Your task to perform on an android device: Go to Yahoo.com Image 0: 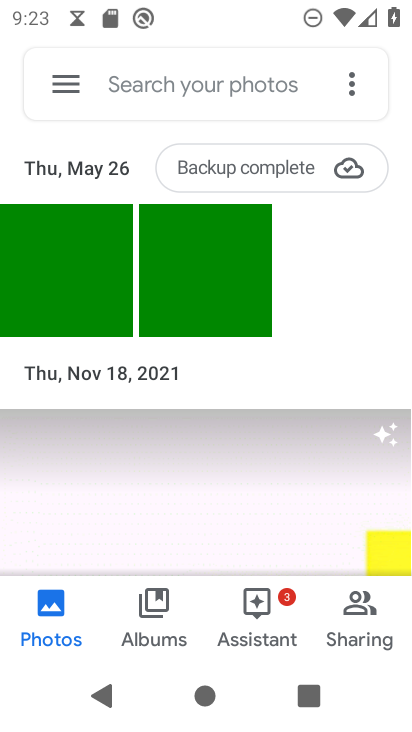
Step 0: press home button
Your task to perform on an android device: Go to Yahoo.com Image 1: 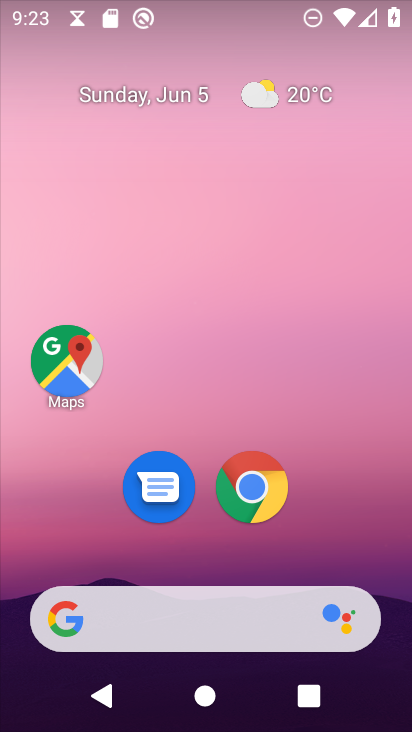
Step 1: click (249, 483)
Your task to perform on an android device: Go to Yahoo.com Image 2: 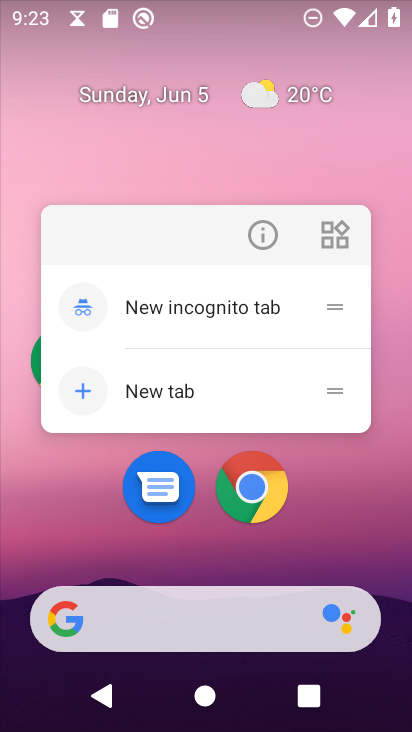
Step 2: click (248, 485)
Your task to perform on an android device: Go to Yahoo.com Image 3: 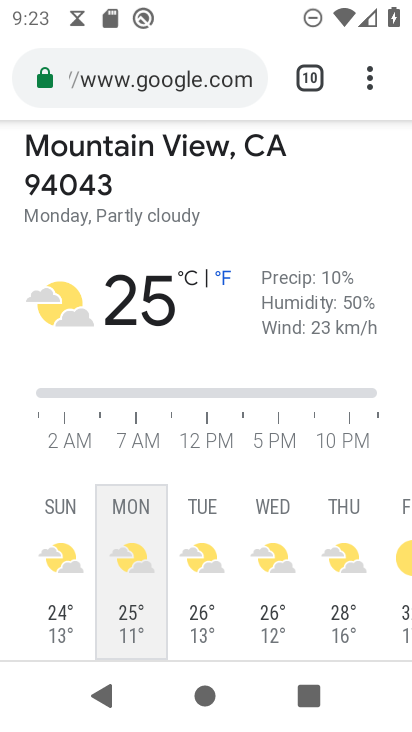
Step 3: click (372, 81)
Your task to perform on an android device: Go to Yahoo.com Image 4: 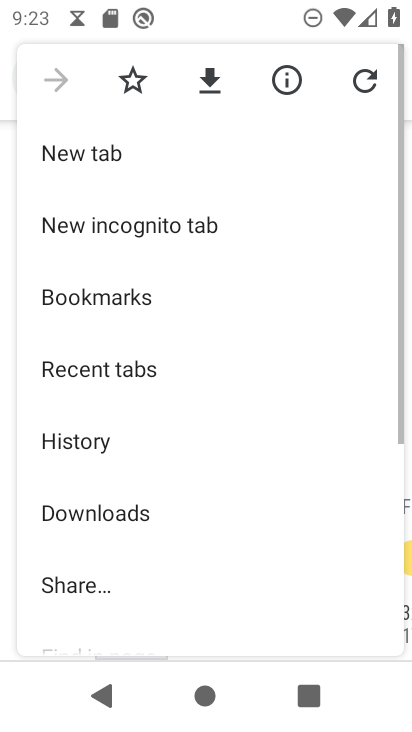
Step 4: click (152, 165)
Your task to perform on an android device: Go to Yahoo.com Image 5: 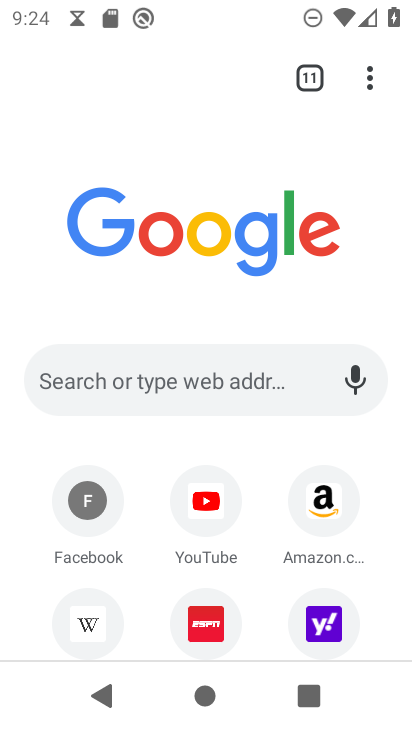
Step 5: click (317, 610)
Your task to perform on an android device: Go to Yahoo.com Image 6: 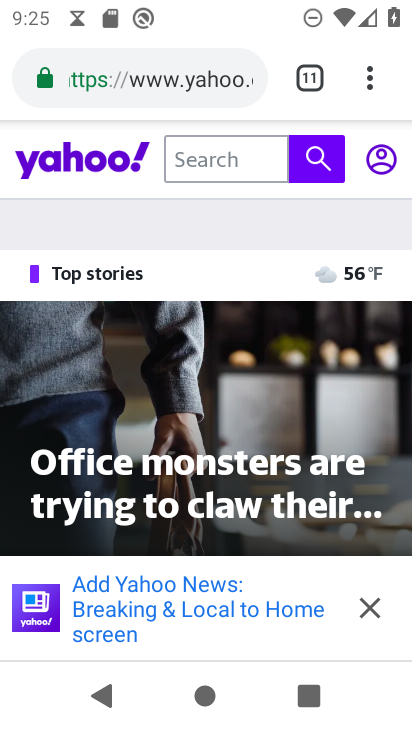
Step 6: task complete